Your task to perform on an android device: open app "eBay: The shopping marketplace" (install if not already installed), go to login, and select forgot password Image 0: 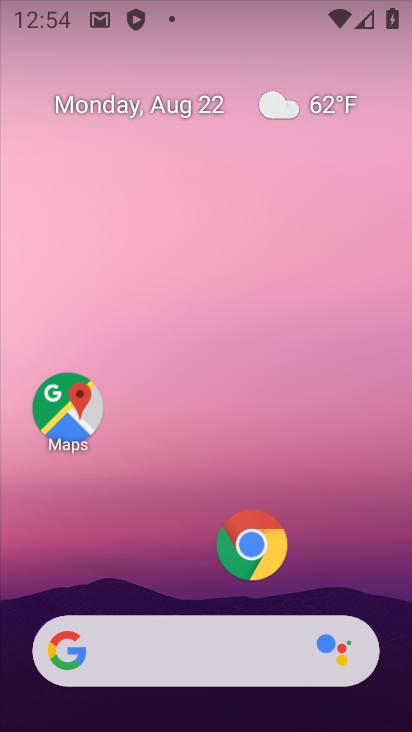
Step 0: drag from (138, 545) to (232, 21)
Your task to perform on an android device: open app "eBay: The shopping marketplace" (install if not already installed), go to login, and select forgot password Image 1: 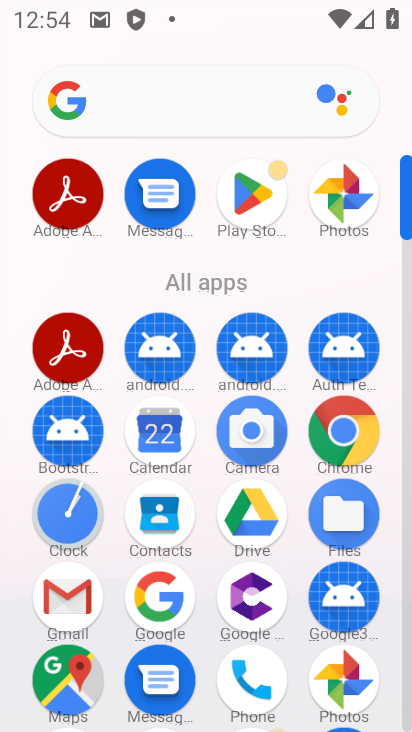
Step 1: click (246, 205)
Your task to perform on an android device: open app "eBay: The shopping marketplace" (install if not already installed), go to login, and select forgot password Image 2: 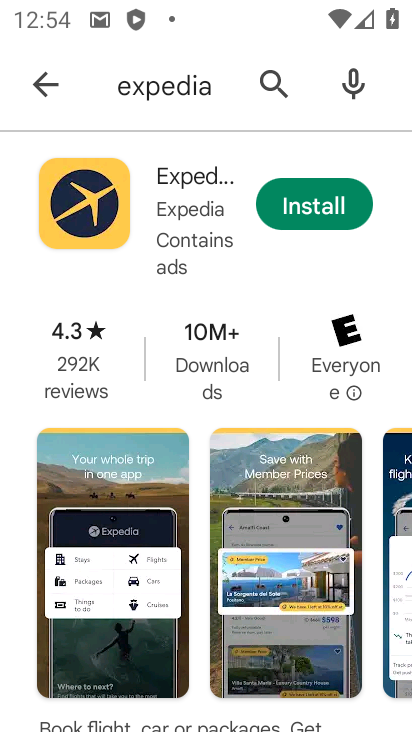
Step 2: click (279, 80)
Your task to perform on an android device: open app "eBay: The shopping marketplace" (install if not already installed), go to login, and select forgot password Image 3: 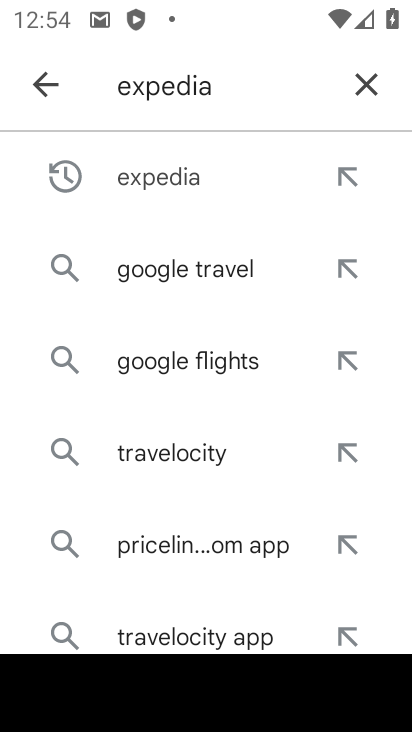
Step 3: click (364, 79)
Your task to perform on an android device: open app "eBay: The shopping marketplace" (install if not already installed), go to login, and select forgot password Image 4: 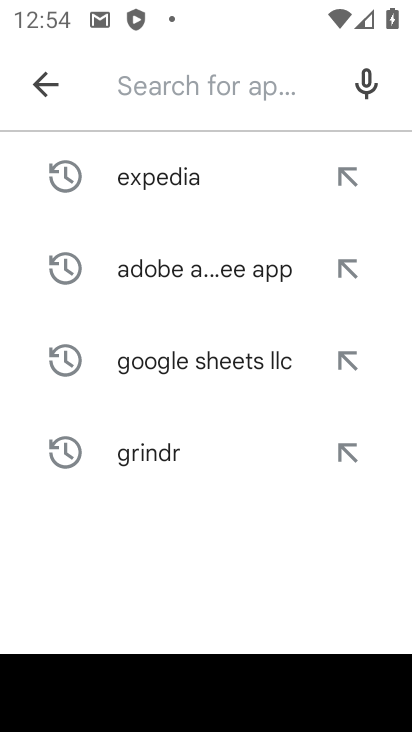
Step 4: click (148, 90)
Your task to perform on an android device: open app "eBay: The shopping marketplace" (install if not already installed), go to login, and select forgot password Image 5: 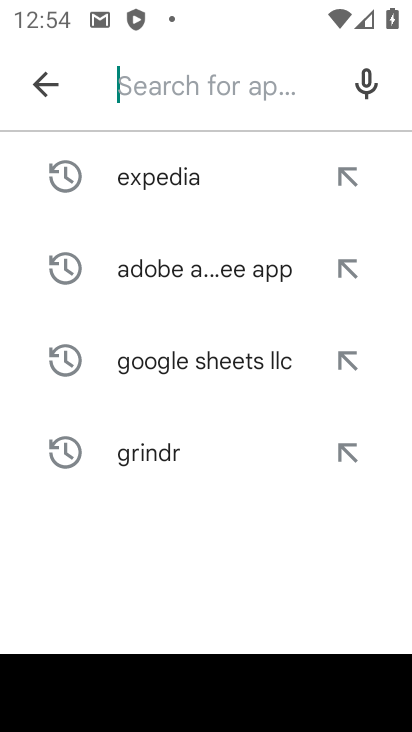
Step 5: type "ebay"
Your task to perform on an android device: open app "eBay: The shopping marketplace" (install if not already installed), go to login, and select forgot password Image 6: 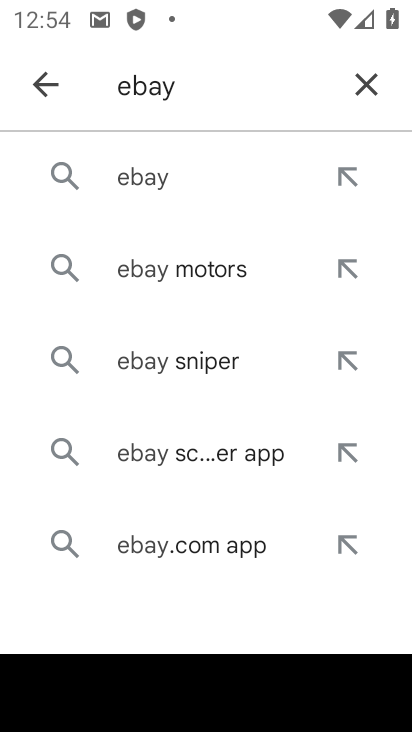
Step 6: click (141, 158)
Your task to perform on an android device: open app "eBay: The shopping marketplace" (install if not already installed), go to login, and select forgot password Image 7: 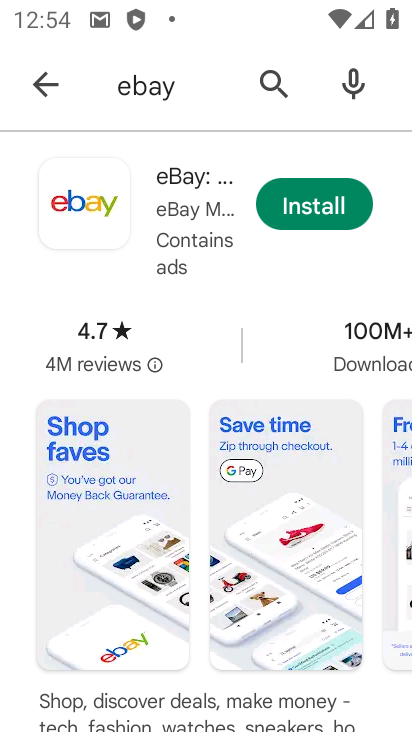
Step 7: click (292, 199)
Your task to perform on an android device: open app "eBay: The shopping marketplace" (install if not already installed), go to login, and select forgot password Image 8: 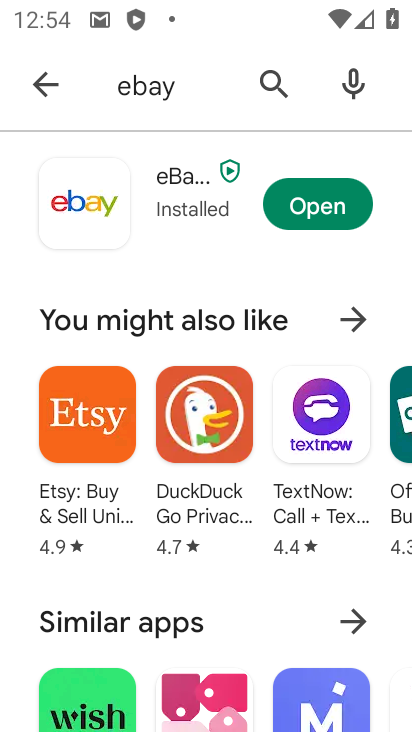
Step 8: click (331, 207)
Your task to perform on an android device: open app "eBay: The shopping marketplace" (install if not already installed), go to login, and select forgot password Image 9: 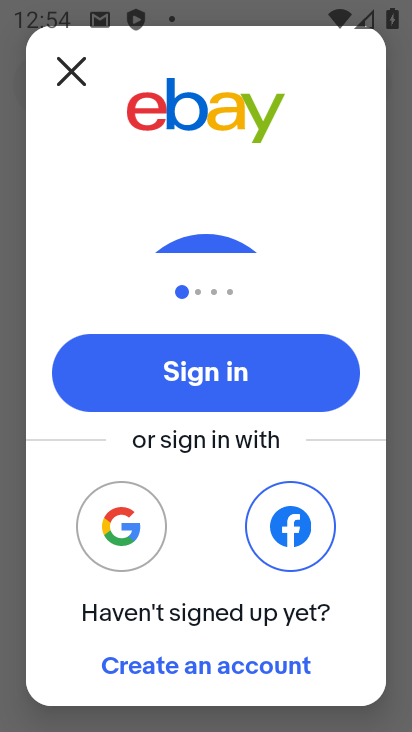
Step 9: click (76, 81)
Your task to perform on an android device: open app "eBay: The shopping marketplace" (install if not already installed), go to login, and select forgot password Image 10: 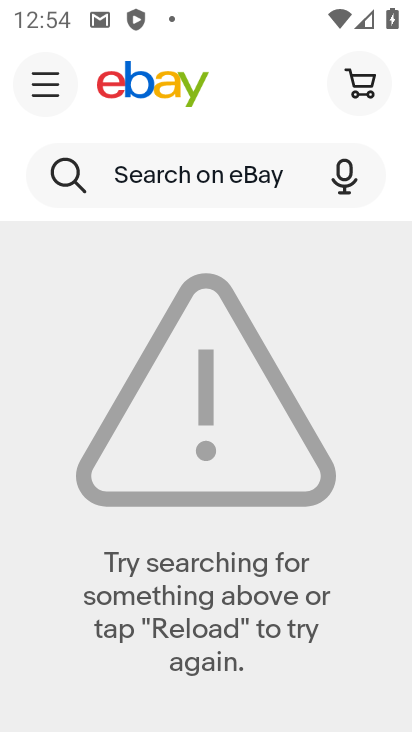
Step 10: click (45, 84)
Your task to perform on an android device: open app "eBay: The shopping marketplace" (install if not already installed), go to login, and select forgot password Image 11: 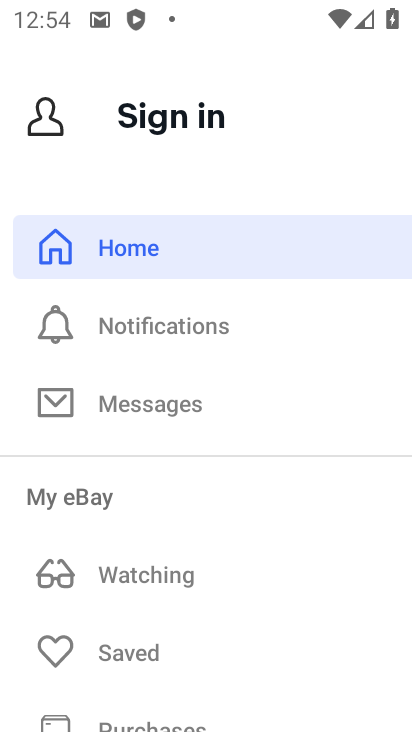
Step 11: click (164, 101)
Your task to perform on an android device: open app "eBay: The shopping marketplace" (install if not already installed), go to login, and select forgot password Image 12: 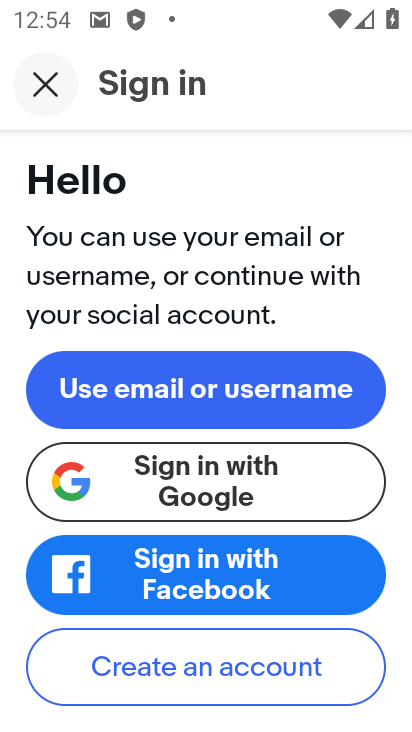
Step 12: click (179, 394)
Your task to perform on an android device: open app "eBay: The shopping marketplace" (install if not already installed), go to login, and select forgot password Image 13: 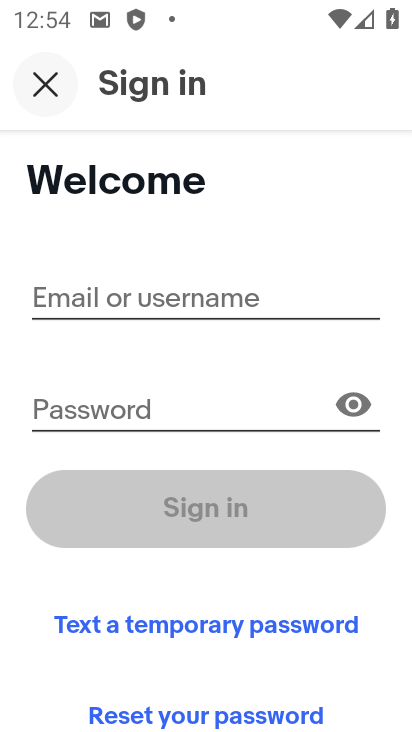
Step 13: task complete